Your task to perform on an android device: Go to Yahoo.com Image 0: 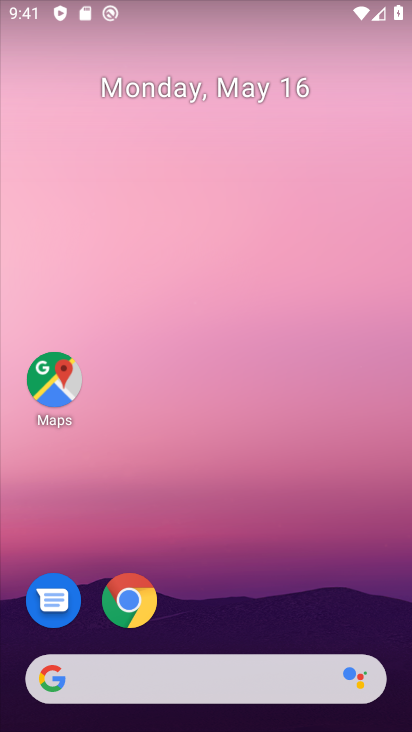
Step 0: click (139, 610)
Your task to perform on an android device: Go to Yahoo.com Image 1: 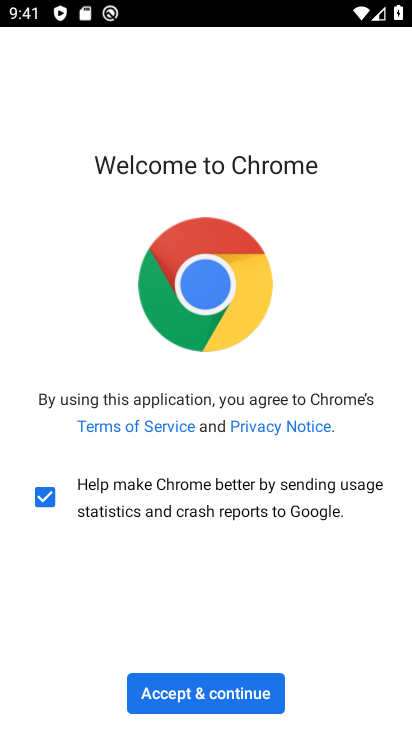
Step 1: click (220, 703)
Your task to perform on an android device: Go to Yahoo.com Image 2: 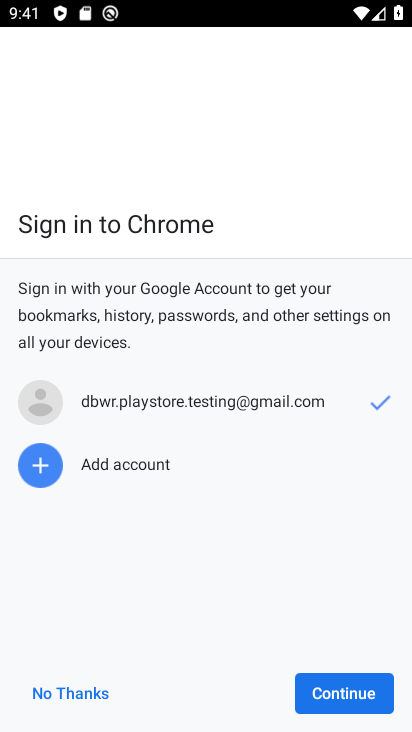
Step 2: click (323, 694)
Your task to perform on an android device: Go to Yahoo.com Image 3: 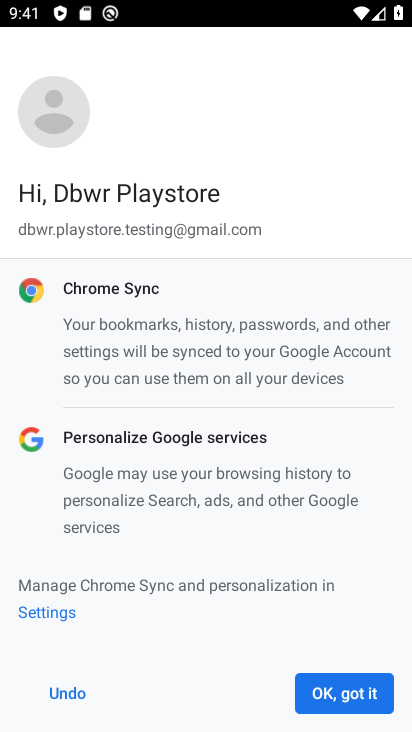
Step 3: click (323, 694)
Your task to perform on an android device: Go to Yahoo.com Image 4: 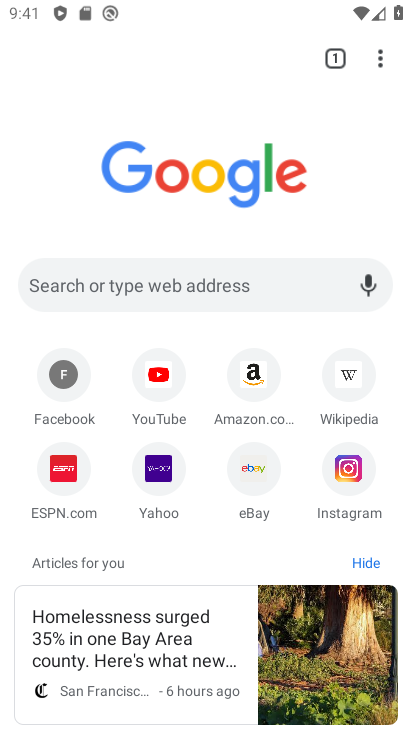
Step 4: click (168, 481)
Your task to perform on an android device: Go to Yahoo.com Image 5: 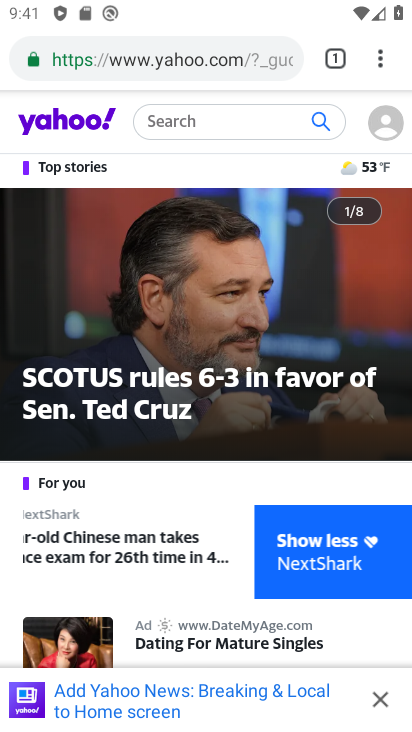
Step 5: click (389, 704)
Your task to perform on an android device: Go to Yahoo.com Image 6: 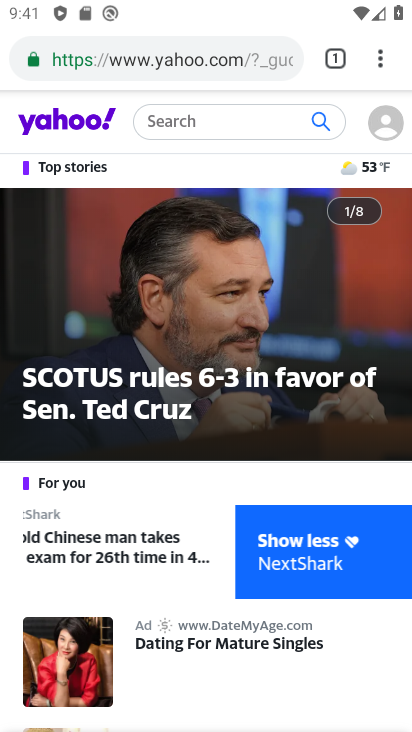
Step 6: task complete